Your task to perform on an android device: find which apps use the phone's location Image 0: 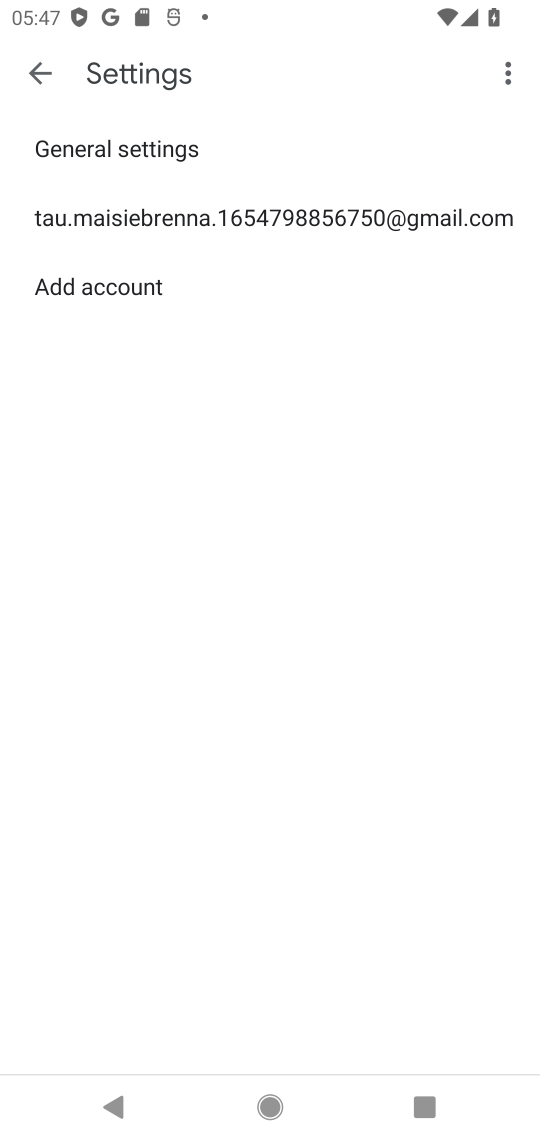
Step 0: press home button
Your task to perform on an android device: find which apps use the phone's location Image 1: 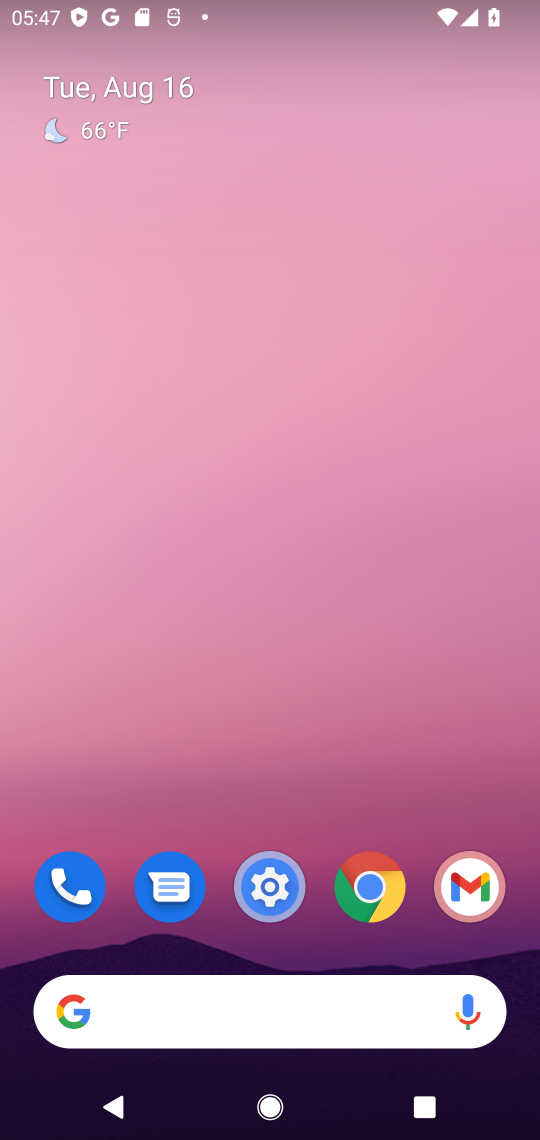
Step 1: drag from (334, 769) to (416, 21)
Your task to perform on an android device: find which apps use the phone's location Image 2: 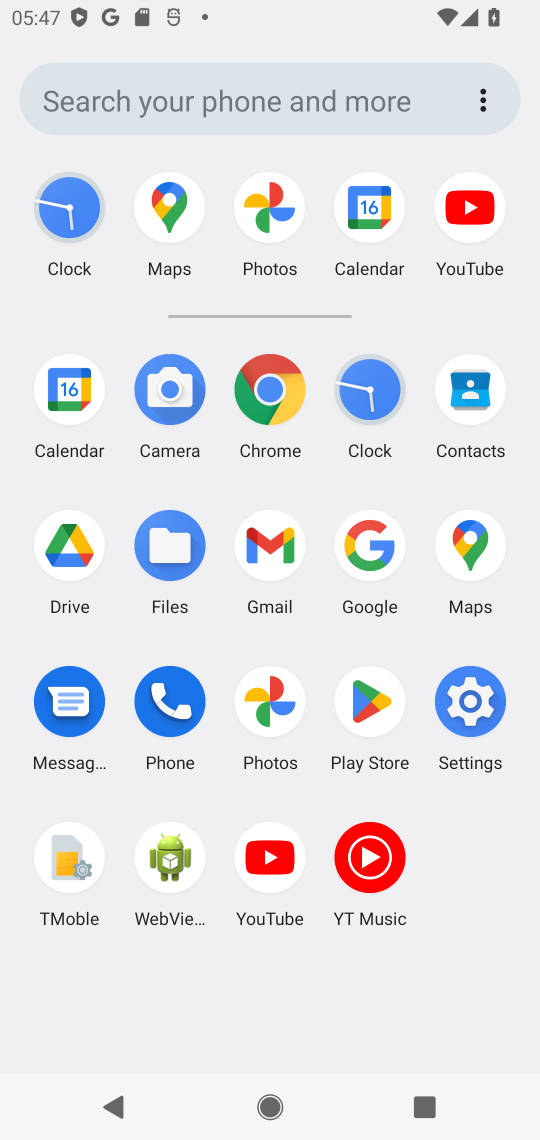
Step 2: click (484, 698)
Your task to perform on an android device: find which apps use the phone's location Image 3: 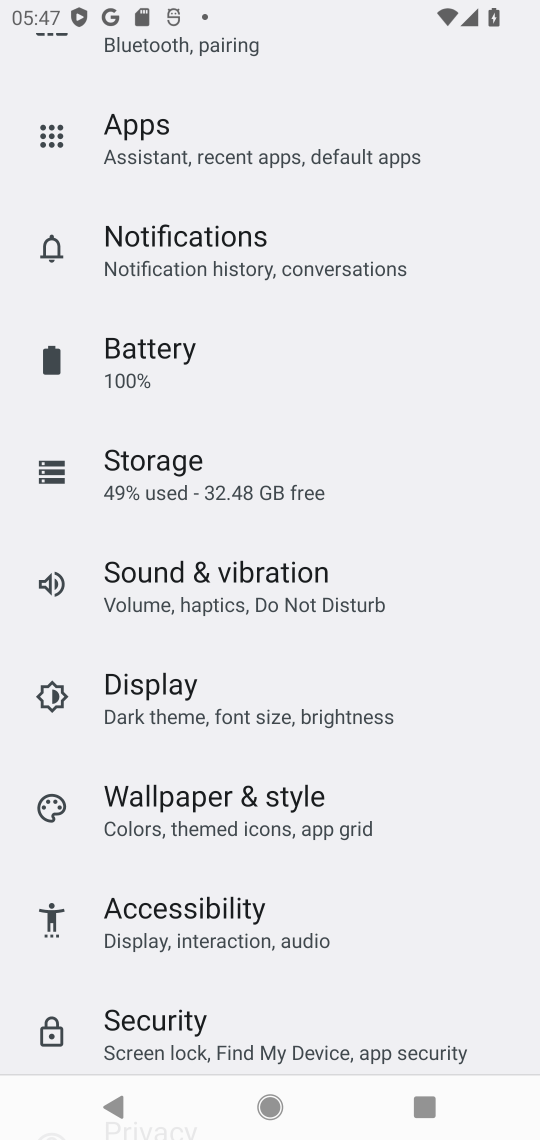
Step 3: drag from (365, 984) to (386, 408)
Your task to perform on an android device: find which apps use the phone's location Image 4: 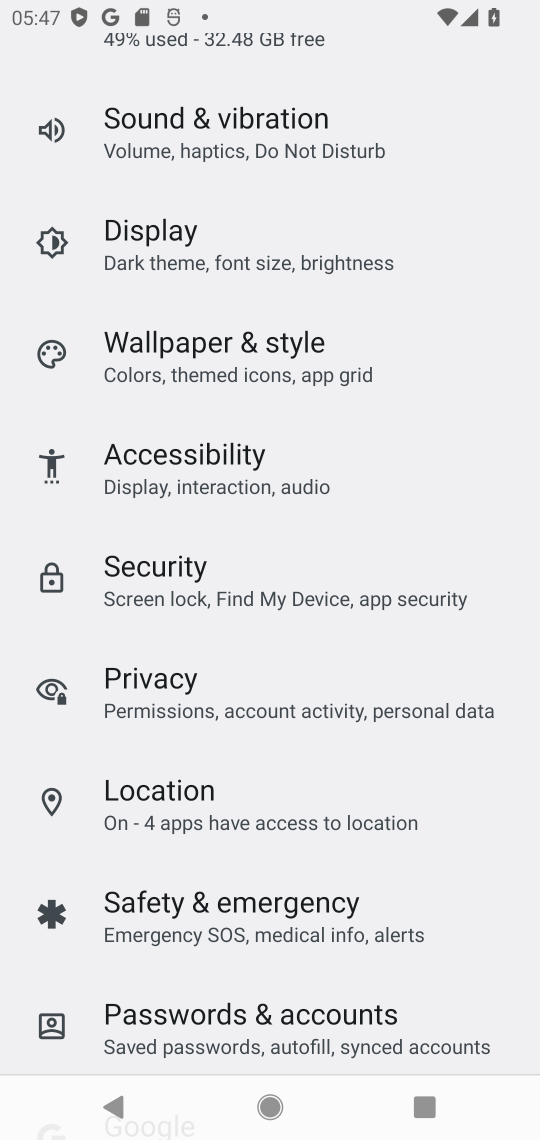
Step 4: click (196, 818)
Your task to perform on an android device: find which apps use the phone's location Image 5: 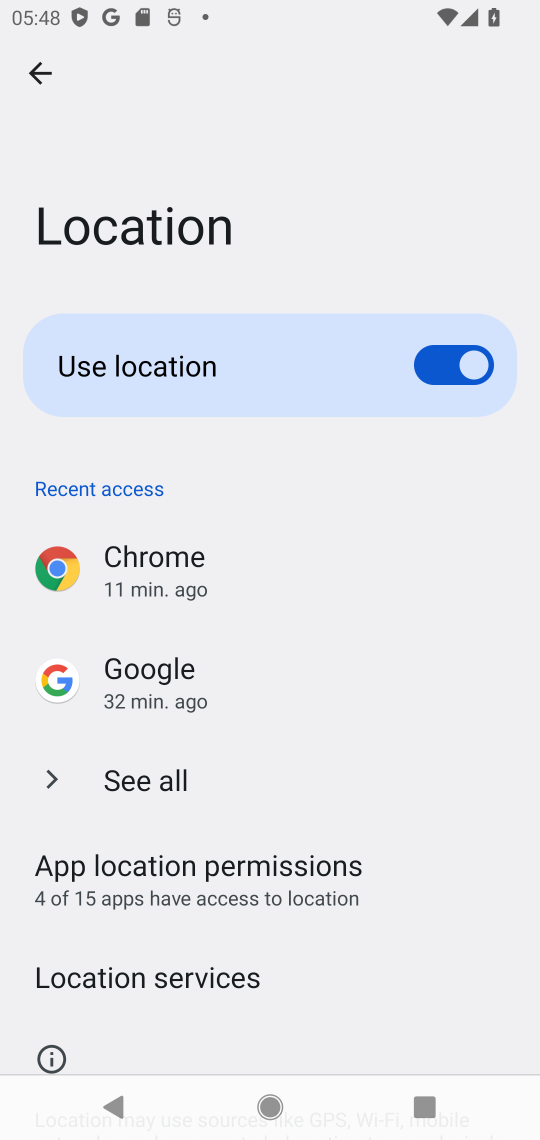
Step 5: click (290, 878)
Your task to perform on an android device: find which apps use the phone's location Image 6: 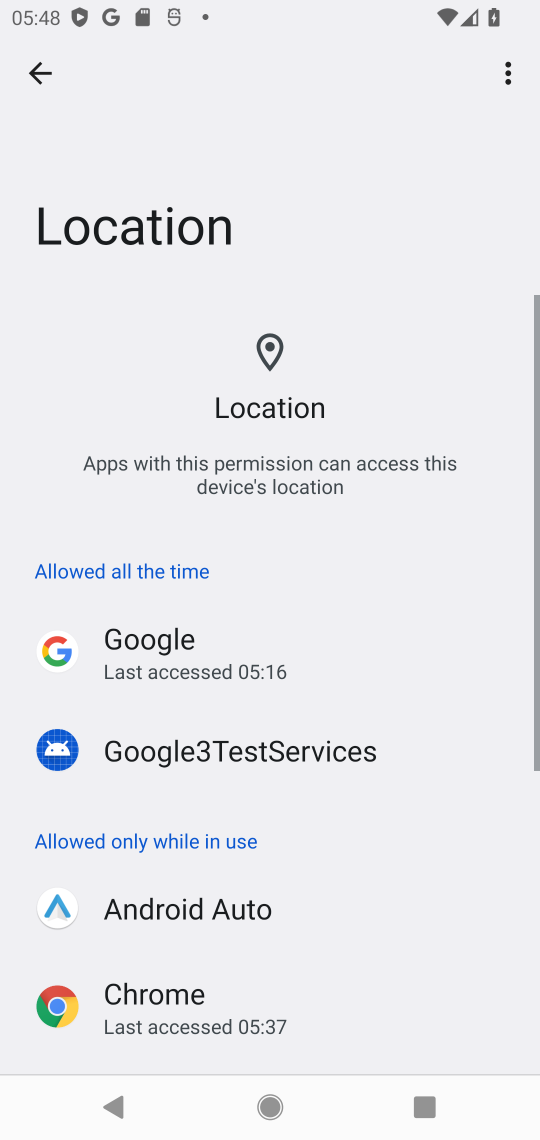
Step 6: task complete